Your task to perform on an android device: Empty the shopping cart on costco. Search for "sony triple a" on costco, select the first entry, add it to the cart, then select checkout. Image 0: 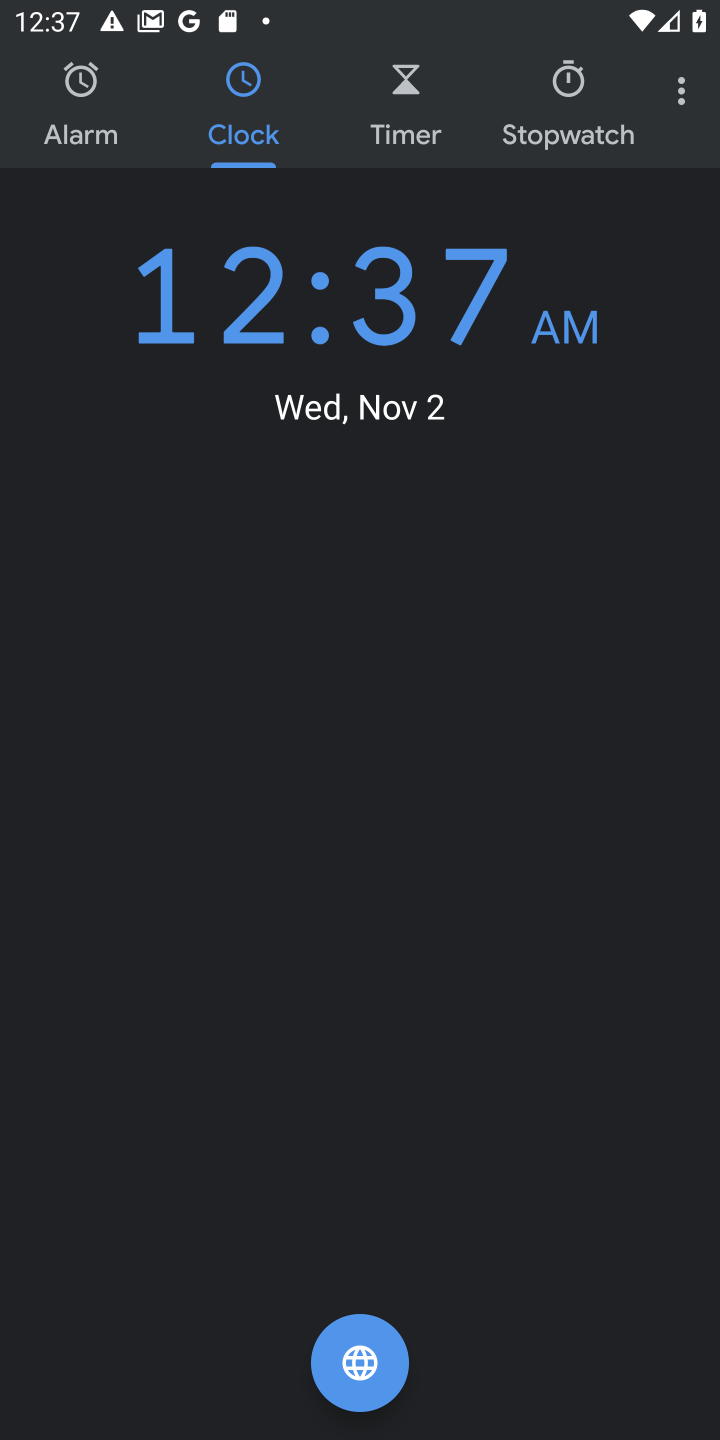
Step 0: press home button
Your task to perform on an android device: Empty the shopping cart on costco. Search for "sony triple a" on costco, select the first entry, add it to the cart, then select checkout. Image 1: 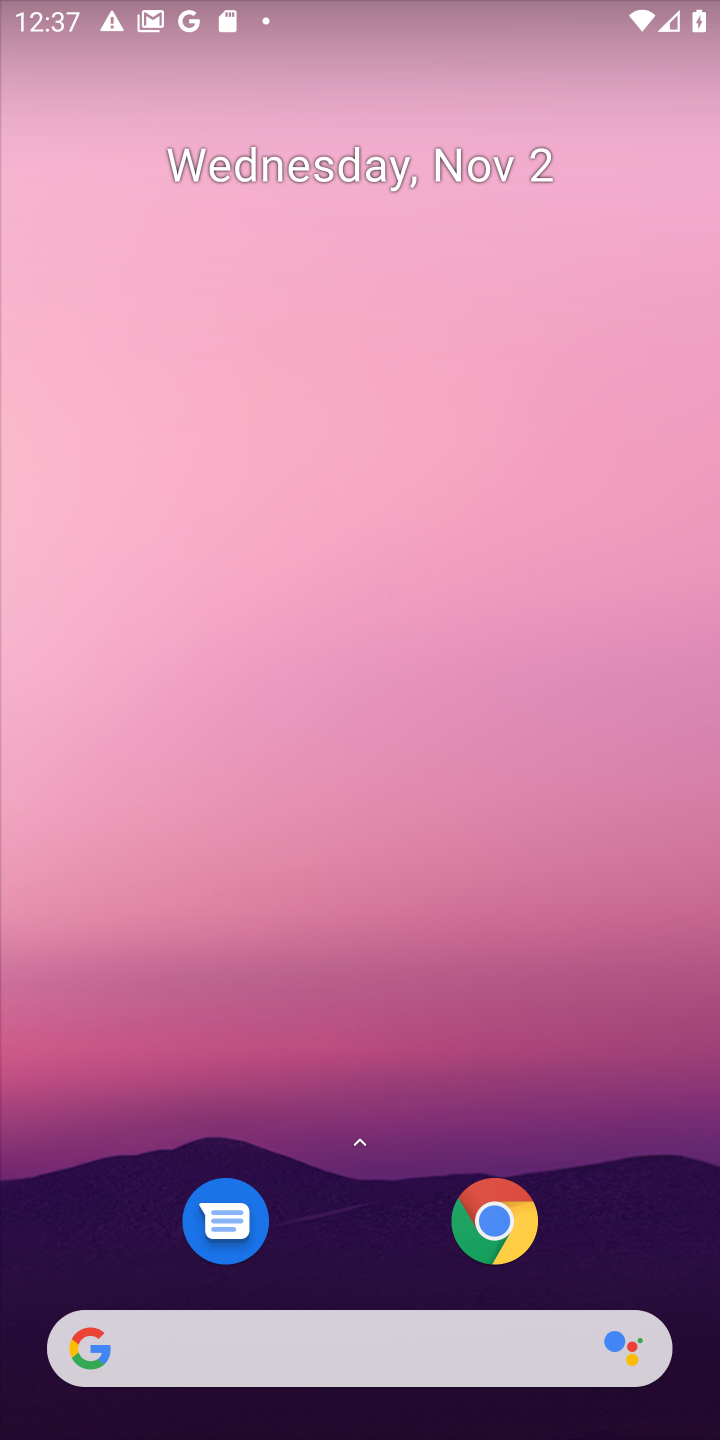
Step 1: click (263, 1355)
Your task to perform on an android device: Empty the shopping cart on costco. Search for "sony triple a" on costco, select the first entry, add it to the cart, then select checkout. Image 2: 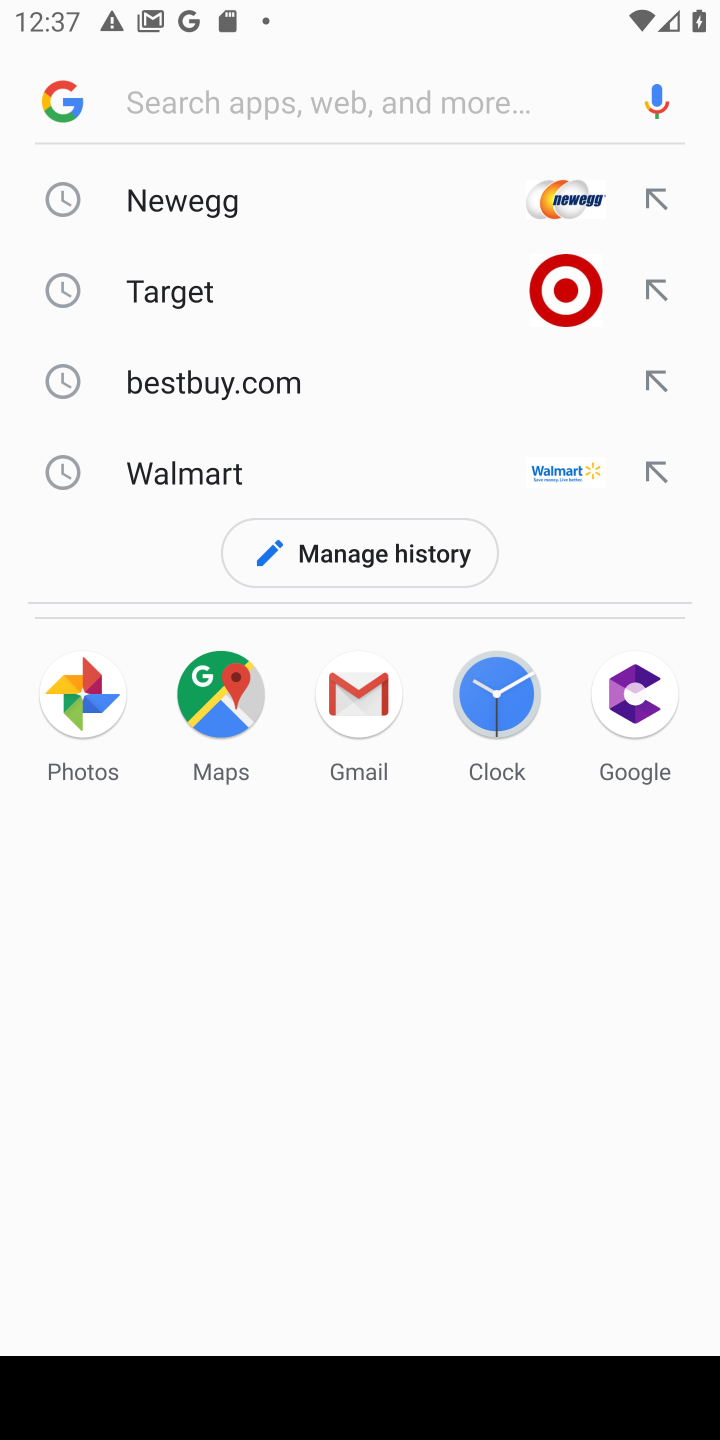
Step 2: type "sony triple "
Your task to perform on an android device: Empty the shopping cart on costco. Search for "sony triple a" on costco, select the first entry, add it to the cart, then select checkout. Image 3: 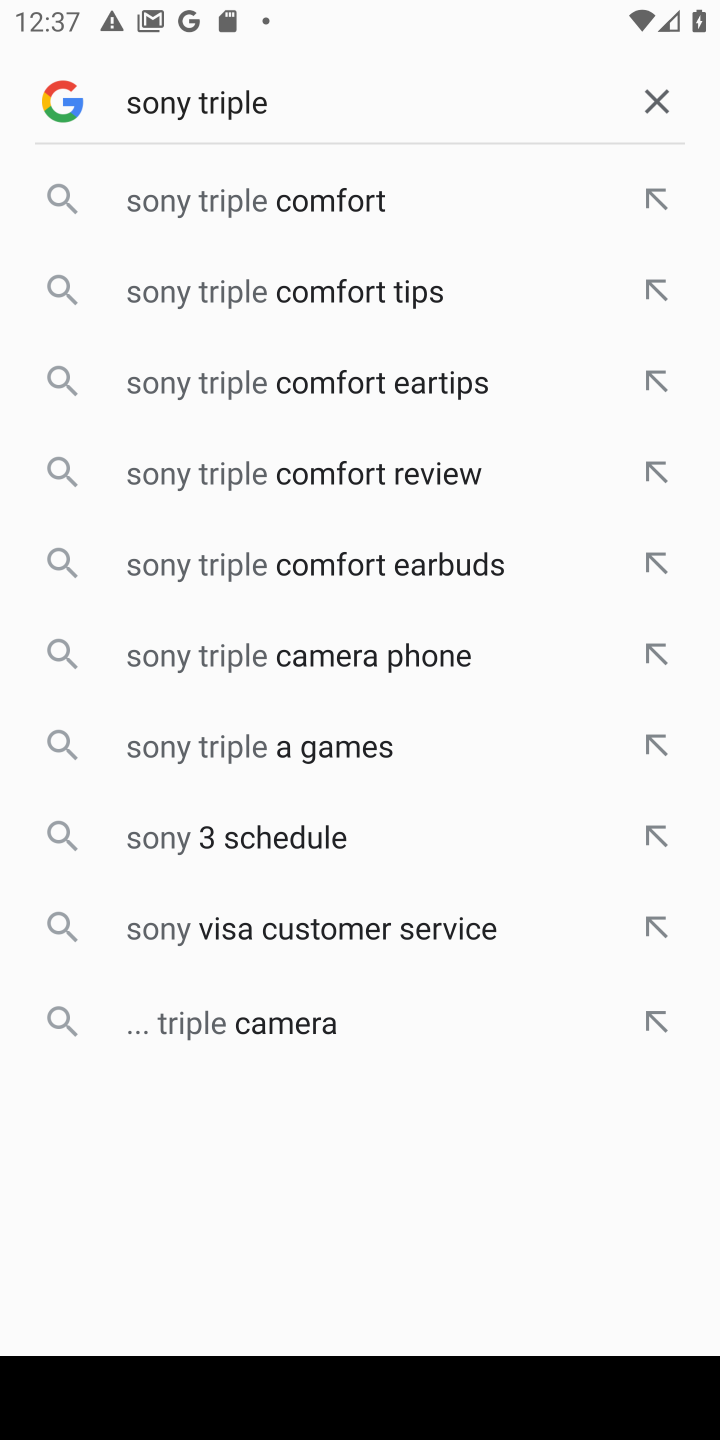
Step 3: type "a"
Your task to perform on an android device: Empty the shopping cart on costco. Search for "sony triple a" on costco, select the first entry, add it to the cart, then select checkout. Image 4: 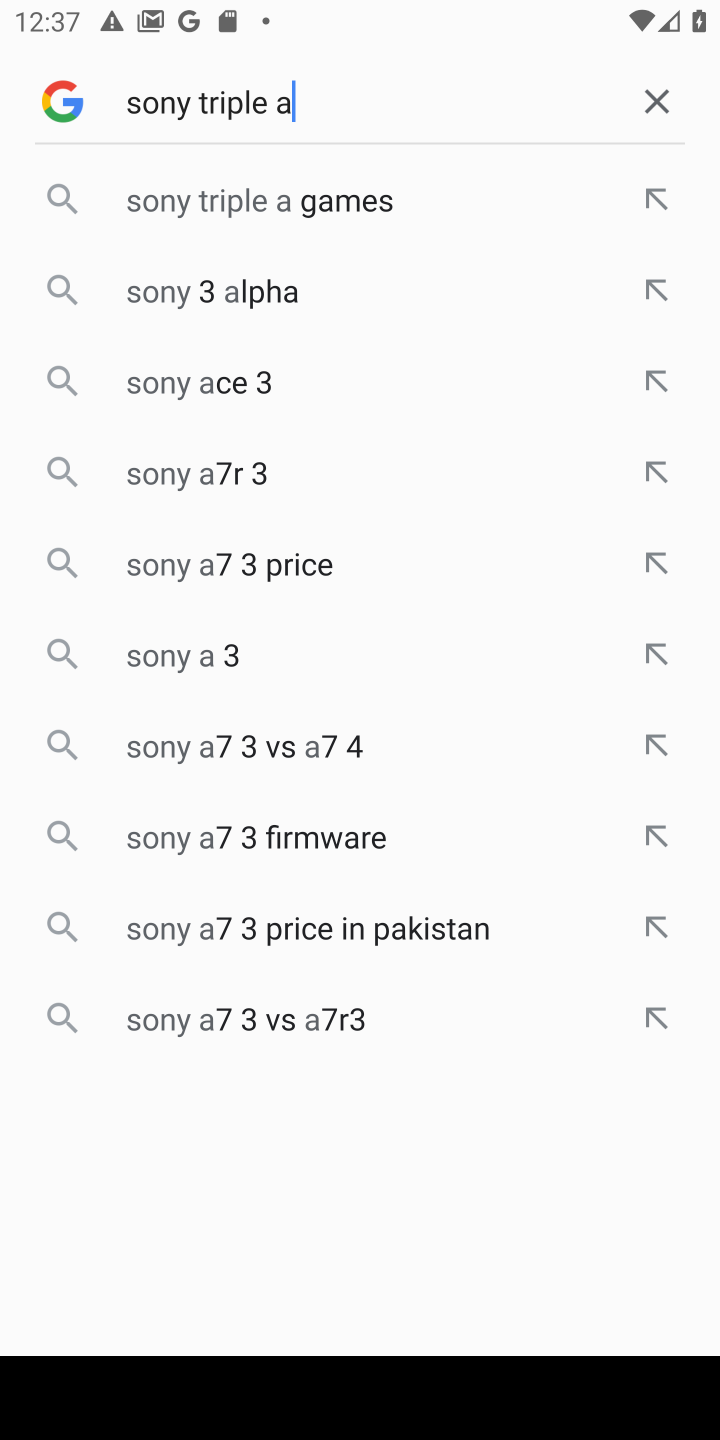
Step 4: click (678, 202)
Your task to perform on an android device: Empty the shopping cart on costco. Search for "sony triple a" on costco, select the first entry, add it to the cart, then select checkout. Image 5: 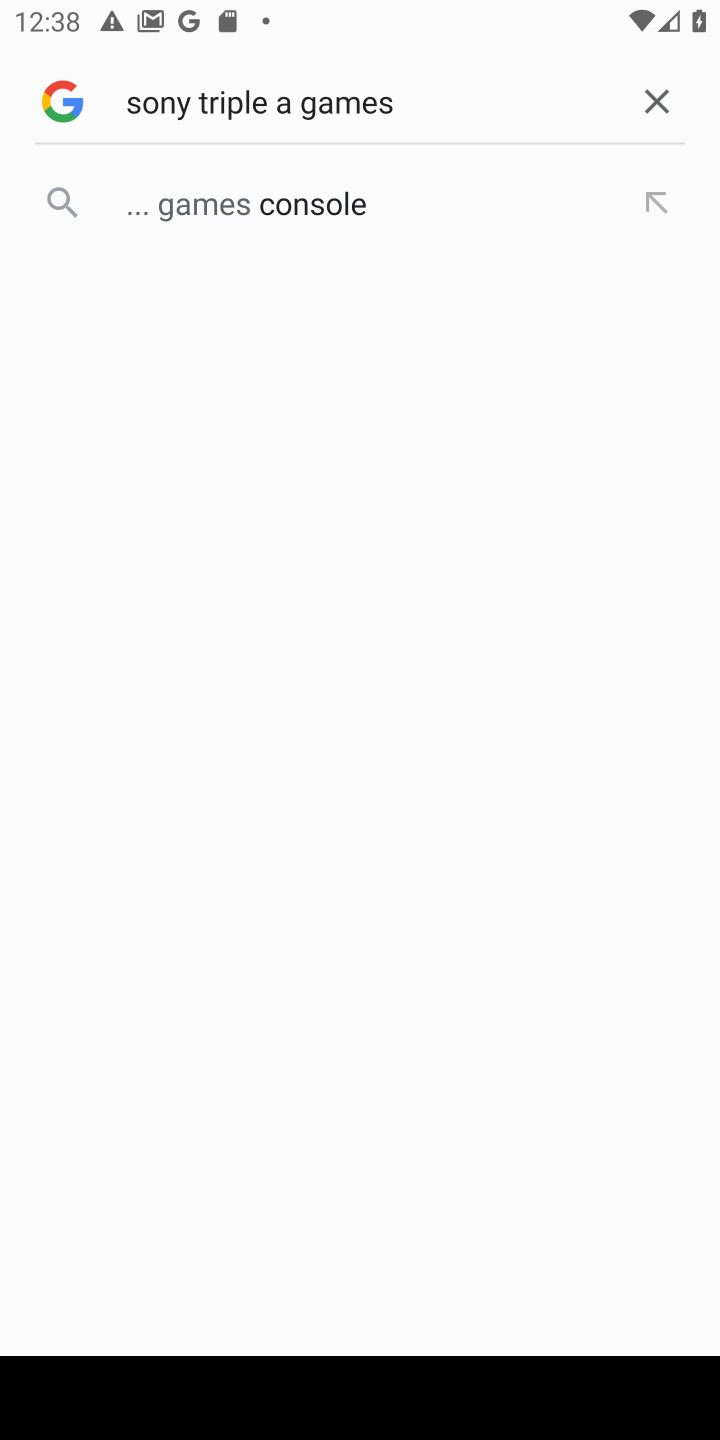
Step 5: click (639, 182)
Your task to perform on an android device: Empty the shopping cart on costco. Search for "sony triple a" on costco, select the first entry, add it to the cart, then select checkout. Image 6: 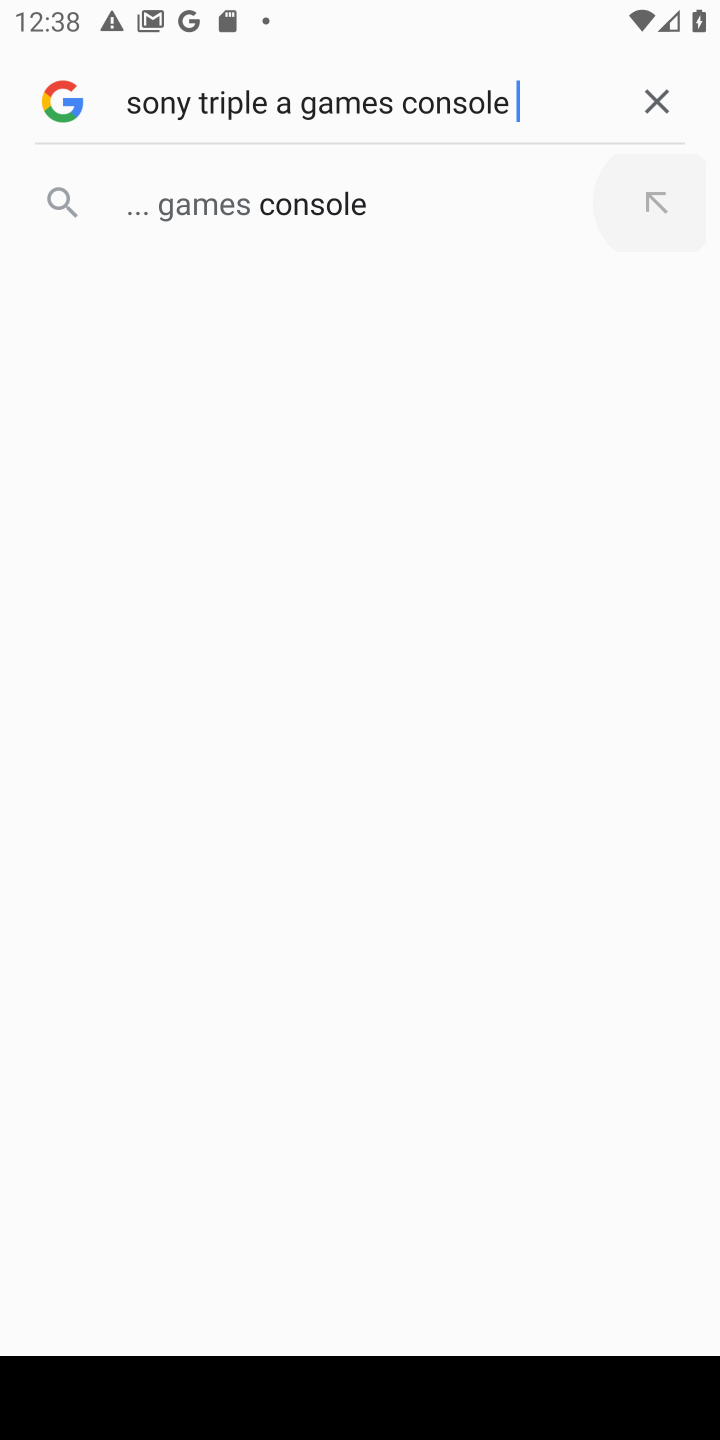
Step 6: task complete